Your task to perform on an android device: empty trash in google photos Image 0: 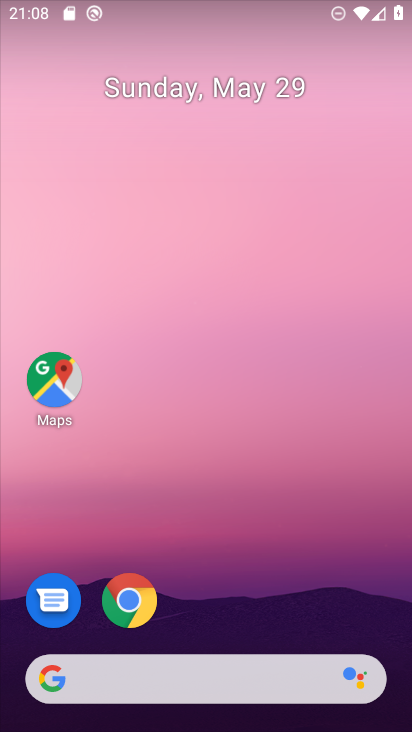
Step 0: drag from (251, 499) to (317, 137)
Your task to perform on an android device: empty trash in google photos Image 1: 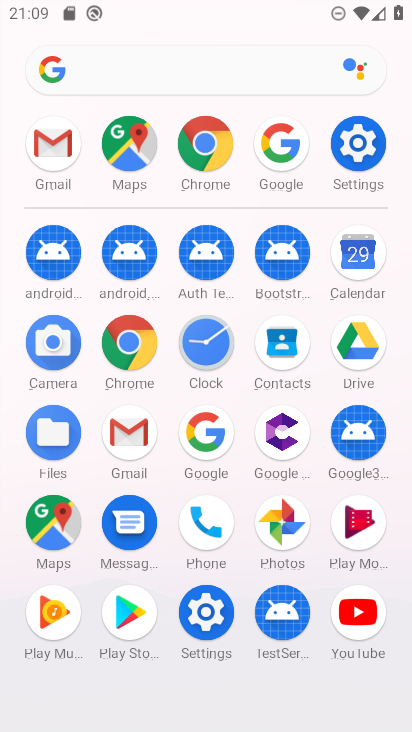
Step 1: click (296, 520)
Your task to perform on an android device: empty trash in google photos Image 2: 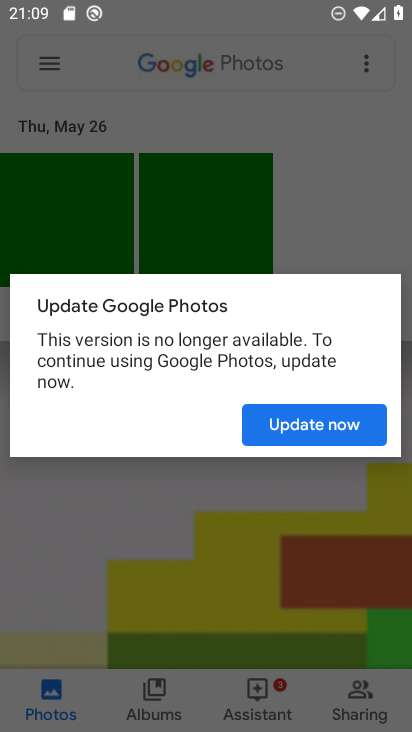
Step 2: click (335, 429)
Your task to perform on an android device: empty trash in google photos Image 3: 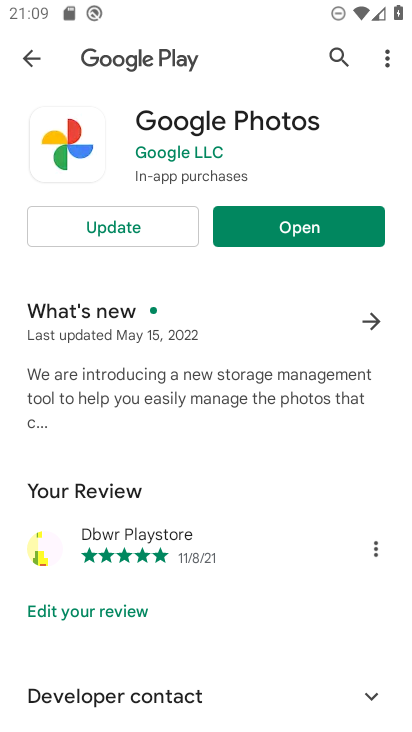
Step 3: click (95, 229)
Your task to perform on an android device: empty trash in google photos Image 4: 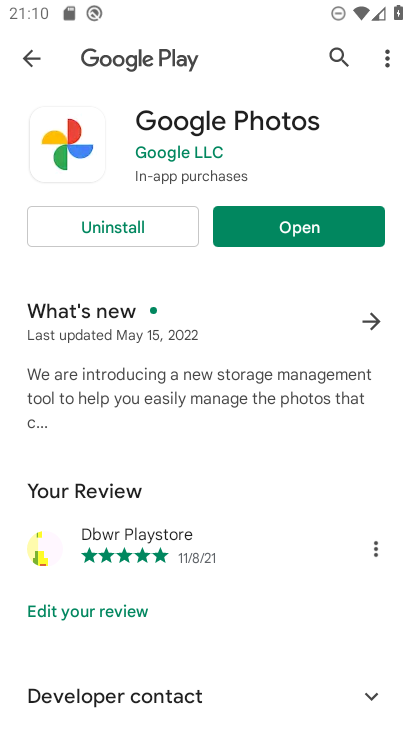
Step 4: click (341, 225)
Your task to perform on an android device: empty trash in google photos Image 5: 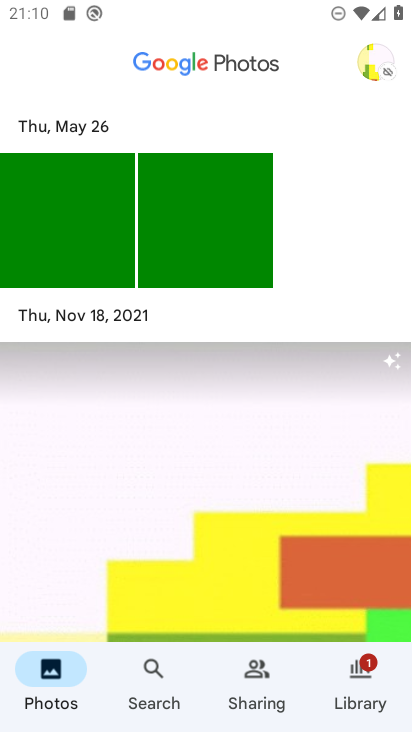
Step 5: click (369, 687)
Your task to perform on an android device: empty trash in google photos Image 6: 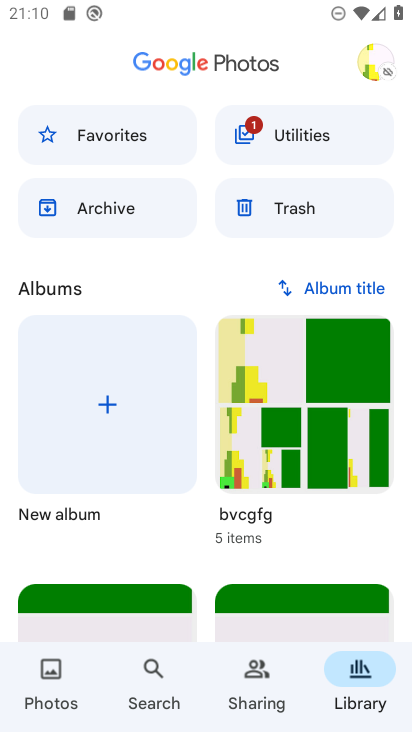
Step 6: click (280, 200)
Your task to perform on an android device: empty trash in google photos Image 7: 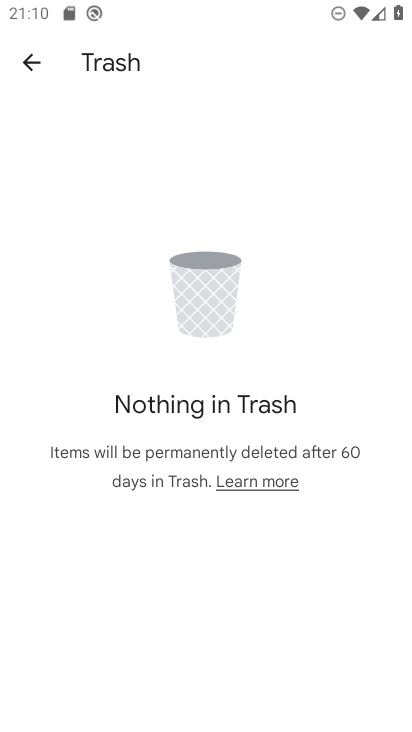
Step 7: task complete